Your task to perform on an android device: turn off translation in the chrome app Image 0: 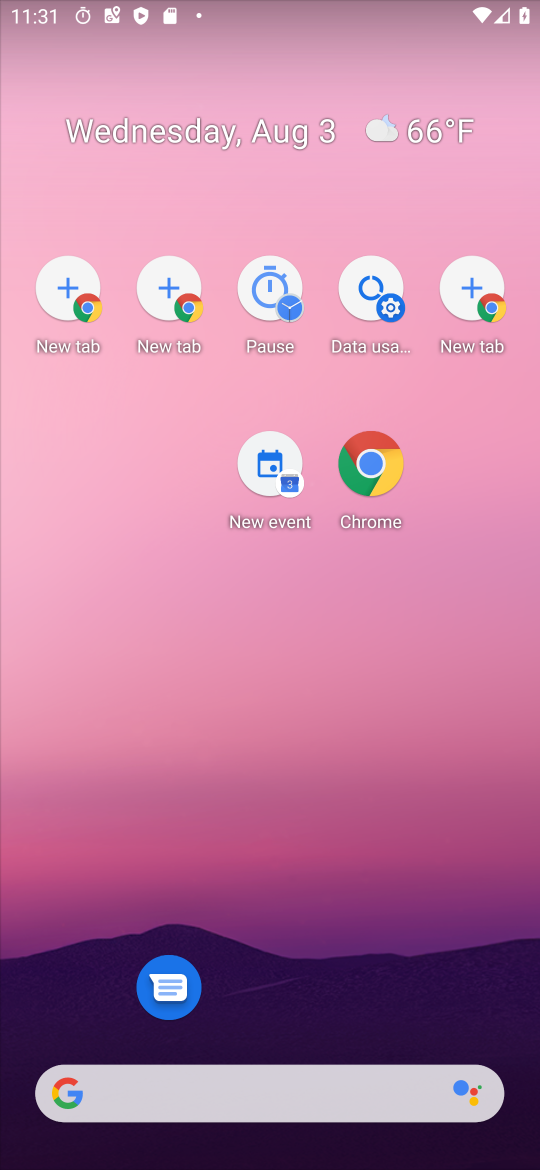
Step 0: drag from (497, 1074) to (248, 407)
Your task to perform on an android device: turn off translation in the chrome app Image 1: 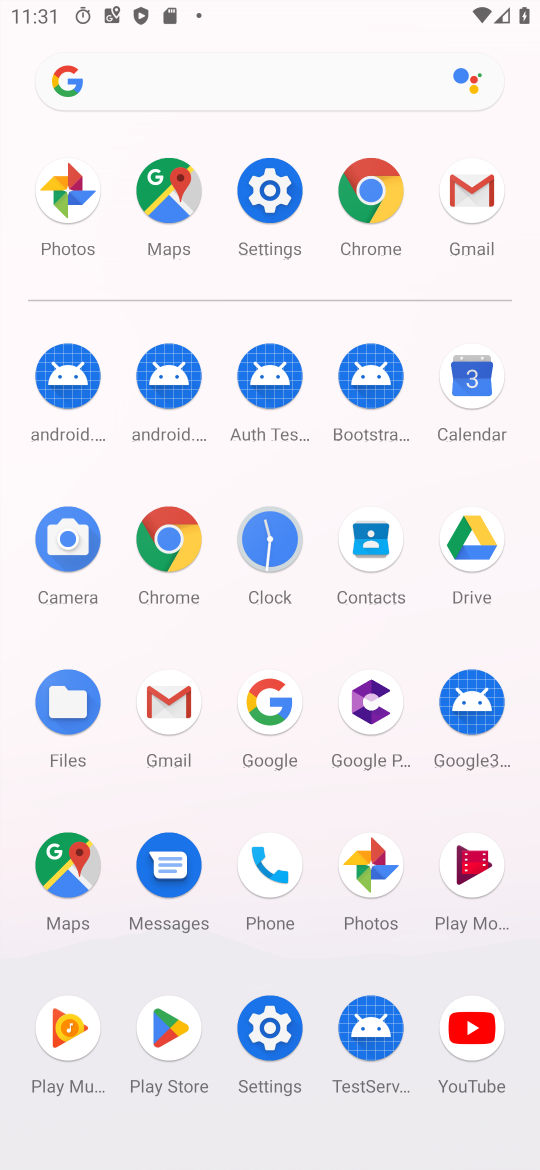
Step 1: click (350, 208)
Your task to perform on an android device: turn off translation in the chrome app Image 2: 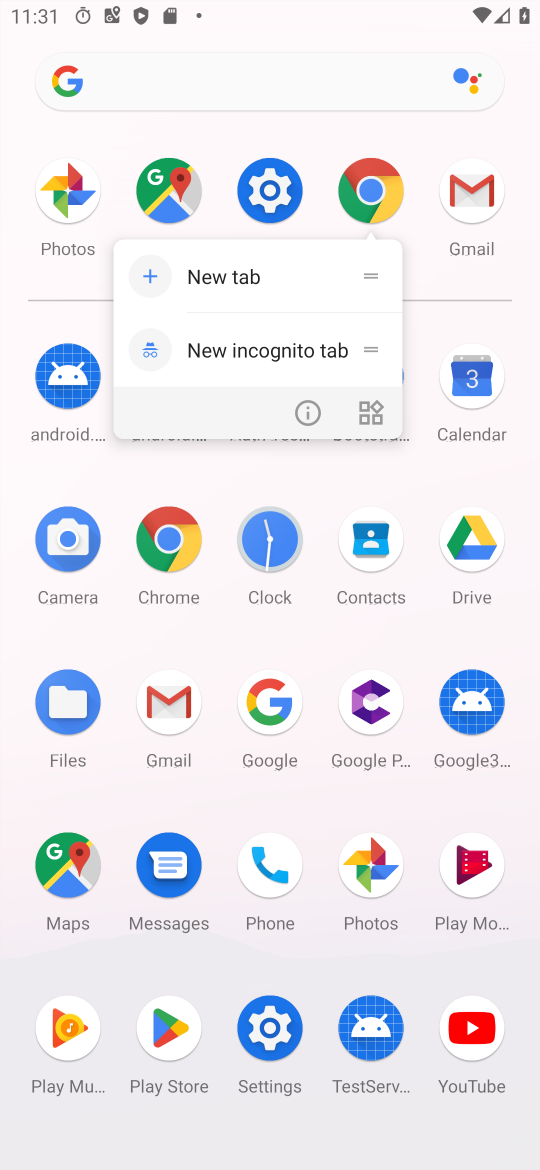
Step 2: click (368, 204)
Your task to perform on an android device: turn off translation in the chrome app Image 3: 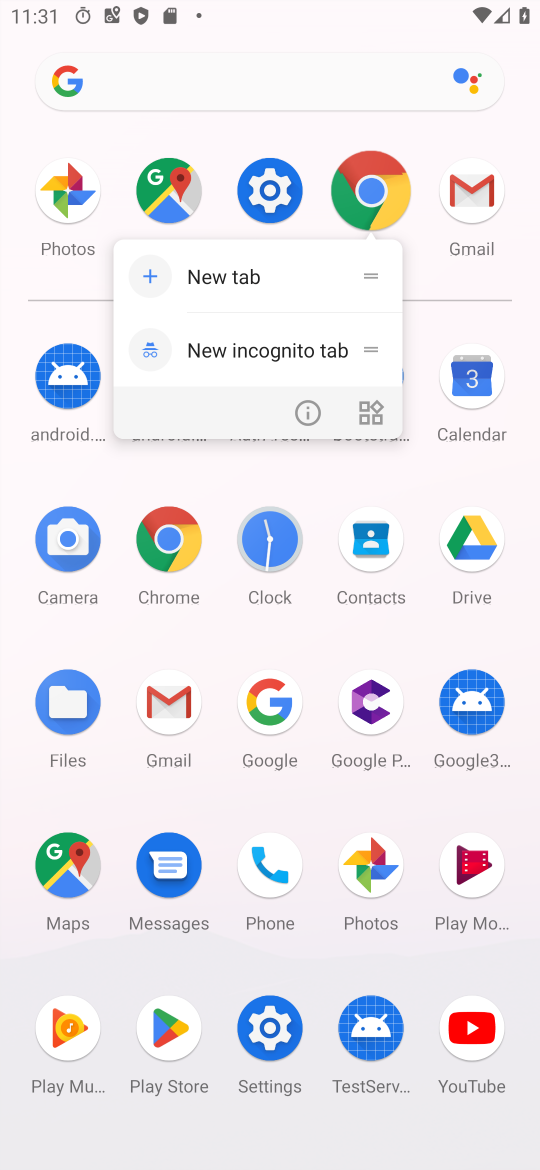
Step 3: click (364, 180)
Your task to perform on an android device: turn off translation in the chrome app Image 4: 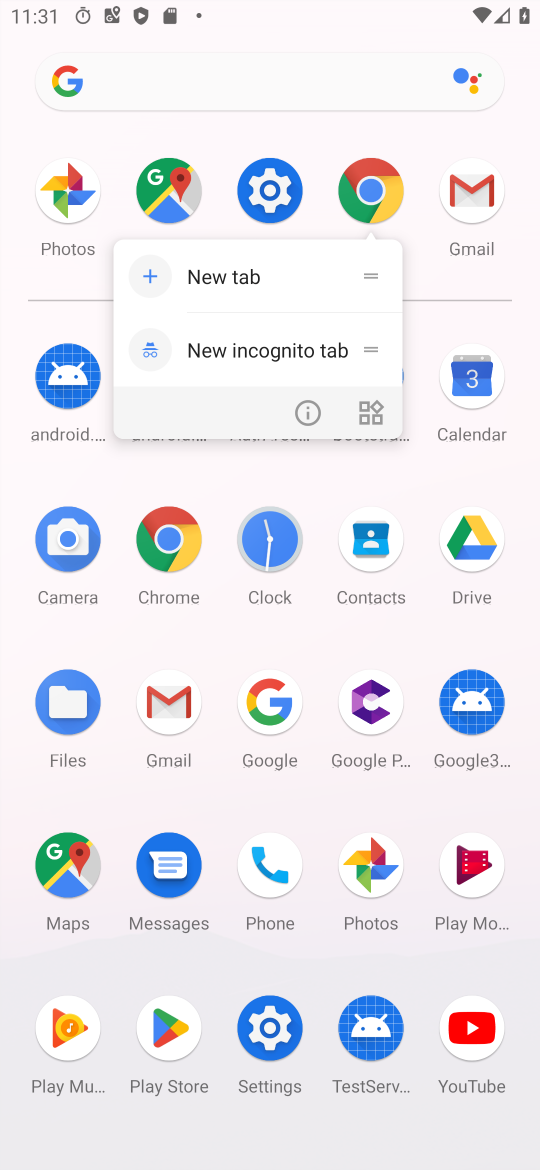
Step 4: click (363, 179)
Your task to perform on an android device: turn off translation in the chrome app Image 5: 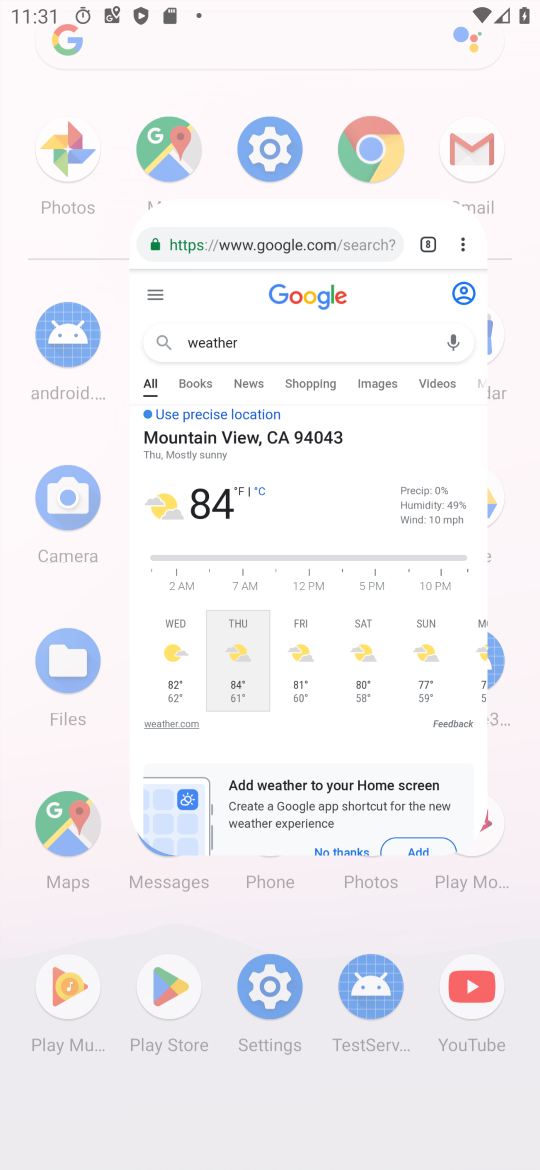
Step 5: click (355, 179)
Your task to perform on an android device: turn off translation in the chrome app Image 6: 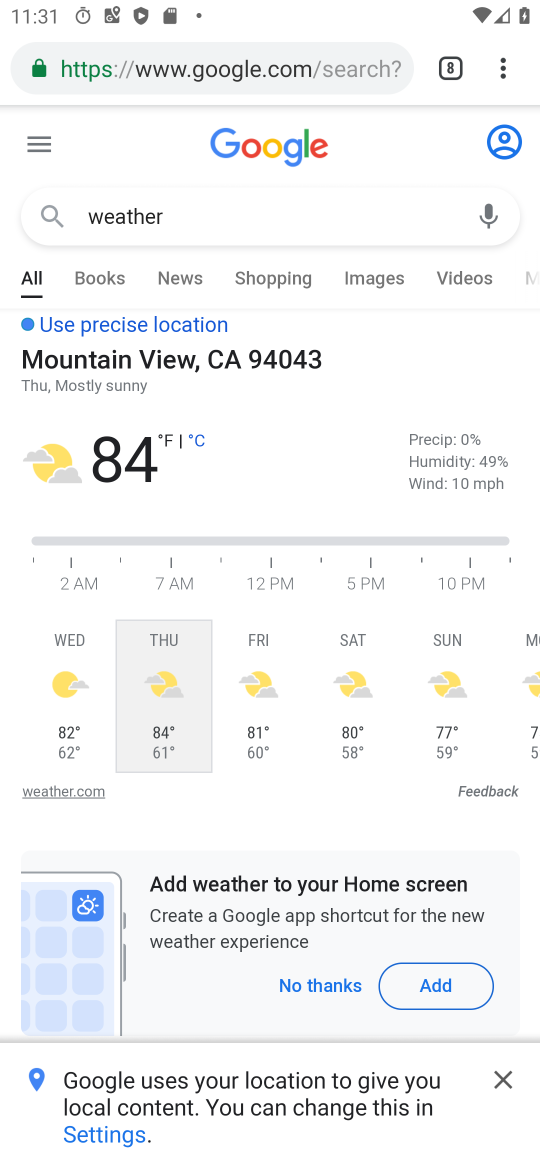
Step 6: drag from (501, 66) to (296, 757)
Your task to perform on an android device: turn off translation in the chrome app Image 7: 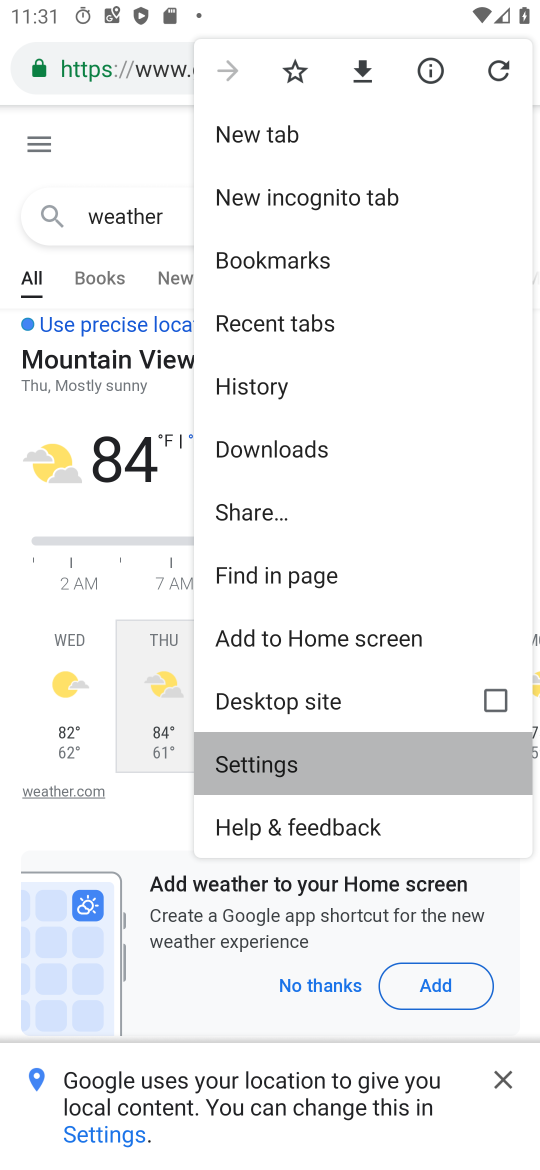
Step 7: click (305, 754)
Your task to perform on an android device: turn off translation in the chrome app Image 8: 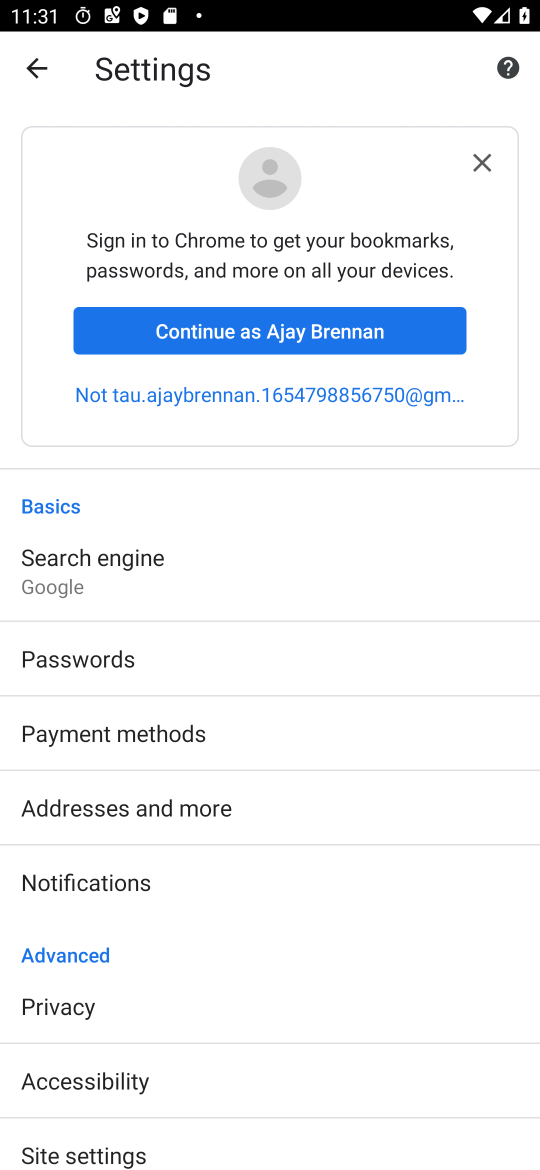
Step 8: drag from (125, 1005) to (21, 293)
Your task to perform on an android device: turn off translation in the chrome app Image 9: 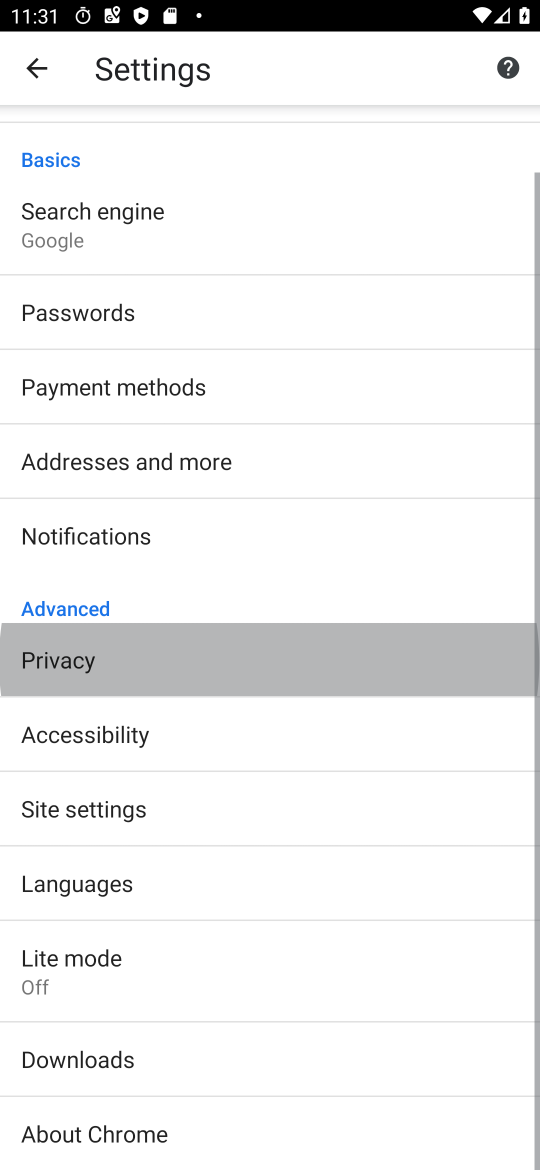
Step 9: drag from (149, 951) to (84, 387)
Your task to perform on an android device: turn off translation in the chrome app Image 10: 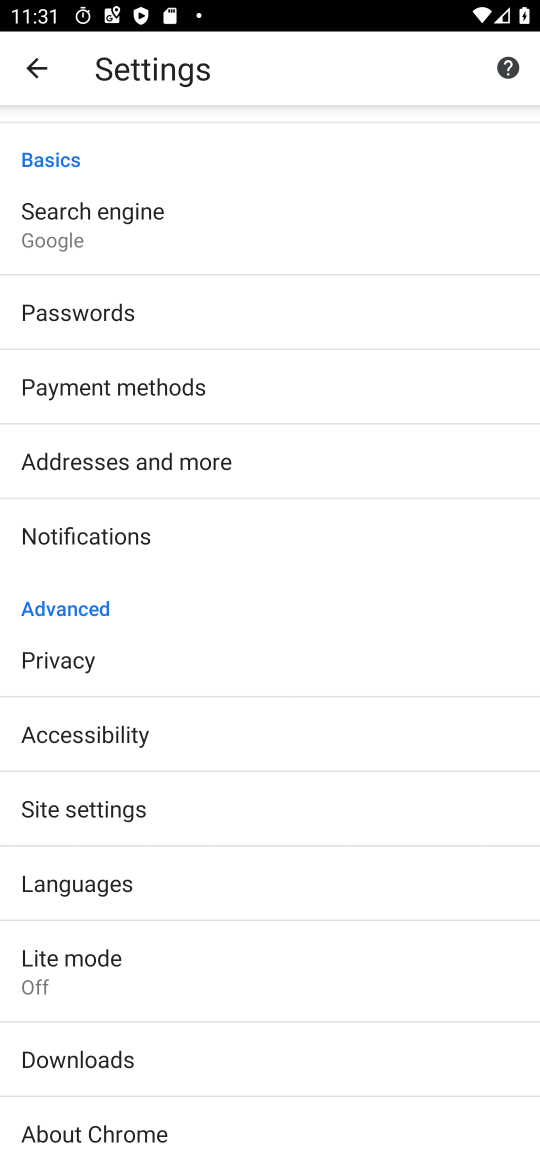
Step 10: drag from (222, 942) to (206, 537)
Your task to perform on an android device: turn off translation in the chrome app Image 11: 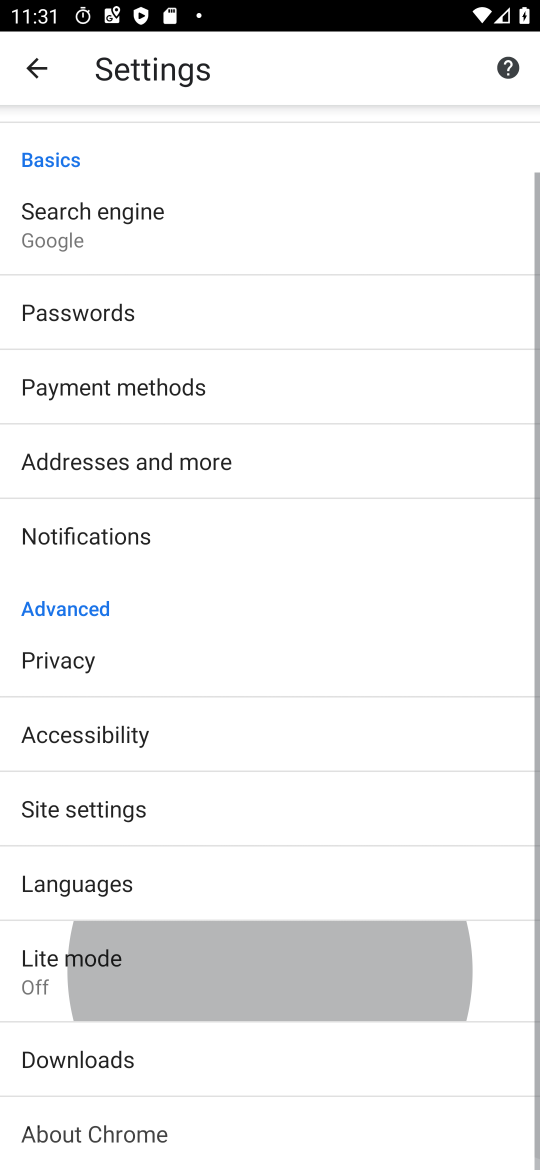
Step 11: drag from (194, 764) to (179, 674)
Your task to perform on an android device: turn off translation in the chrome app Image 12: 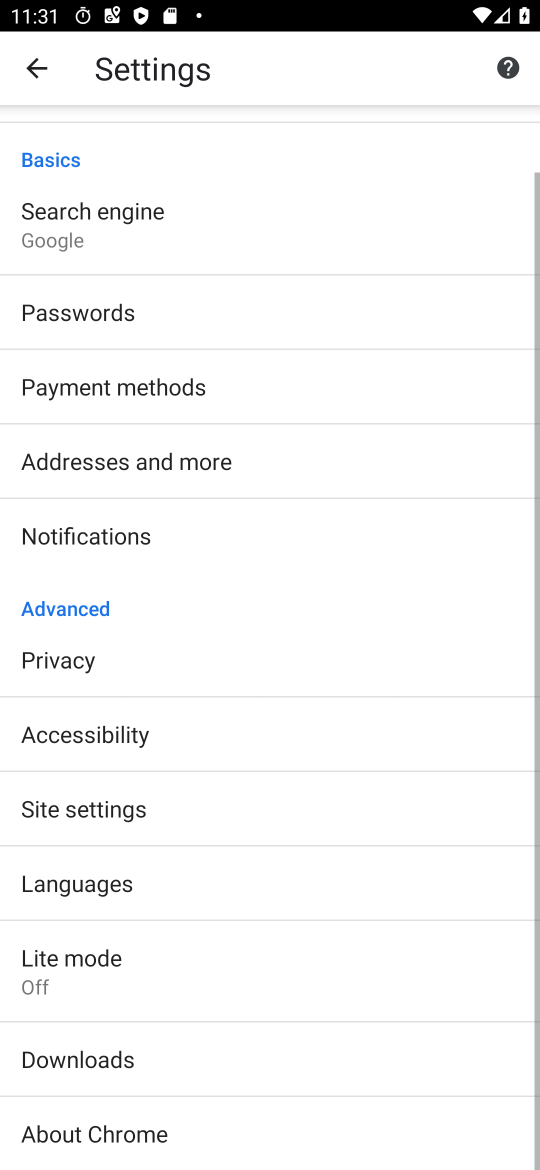
Step 12: click (114, 883)
Your task to perform on an android device: turn off translation in the chrome app Image 13: 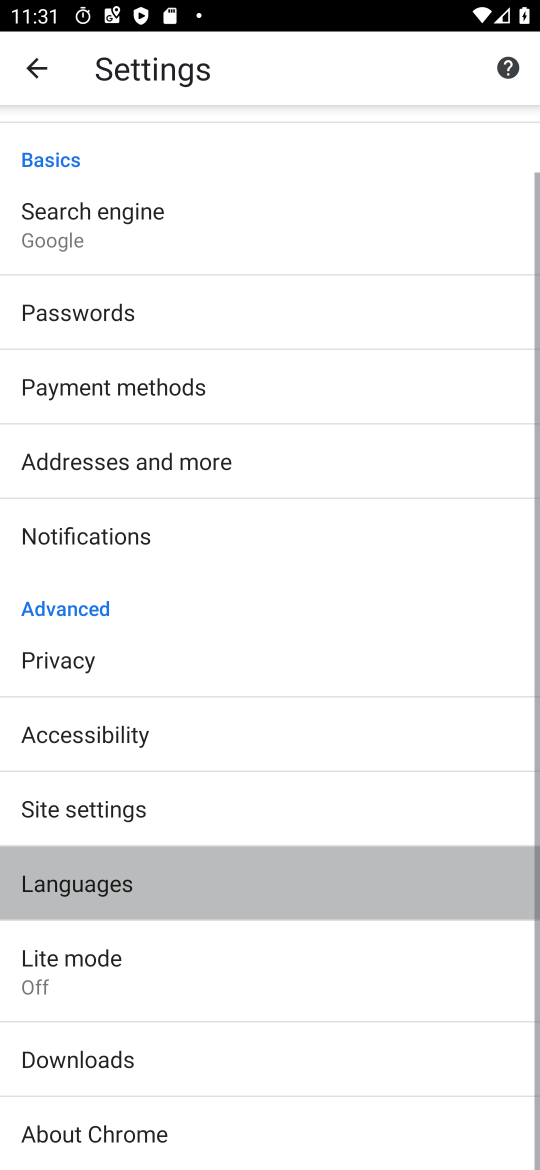
Step 13: click (118, 881)
Your task to perform on an android device: turn off translation in the chrome app Image 14: 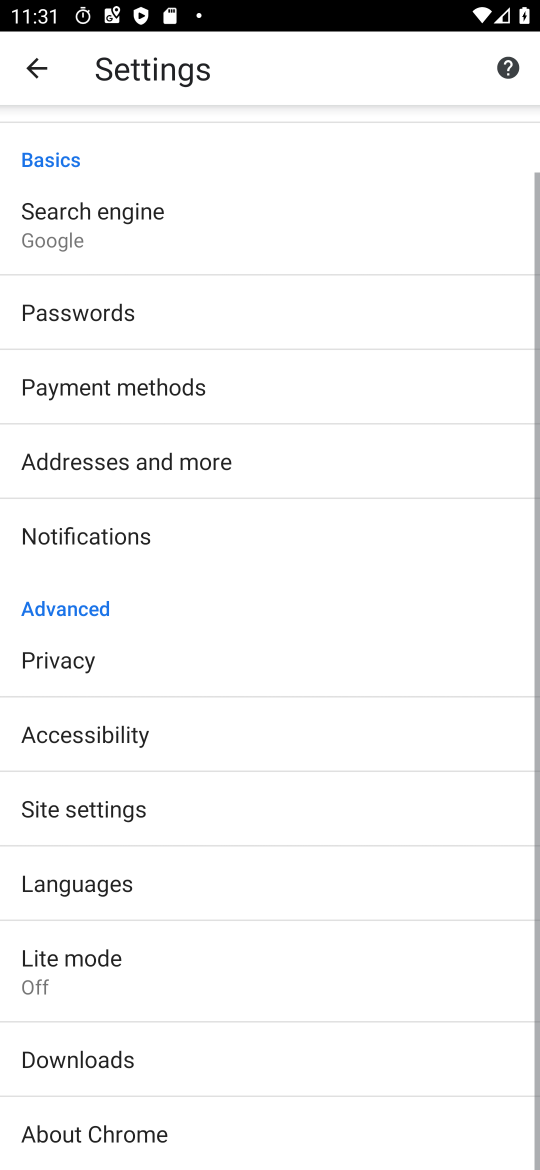
Step 14: click (120, 879)
Your task to perform on an android device: turn off translation in the chrome app Image 15: 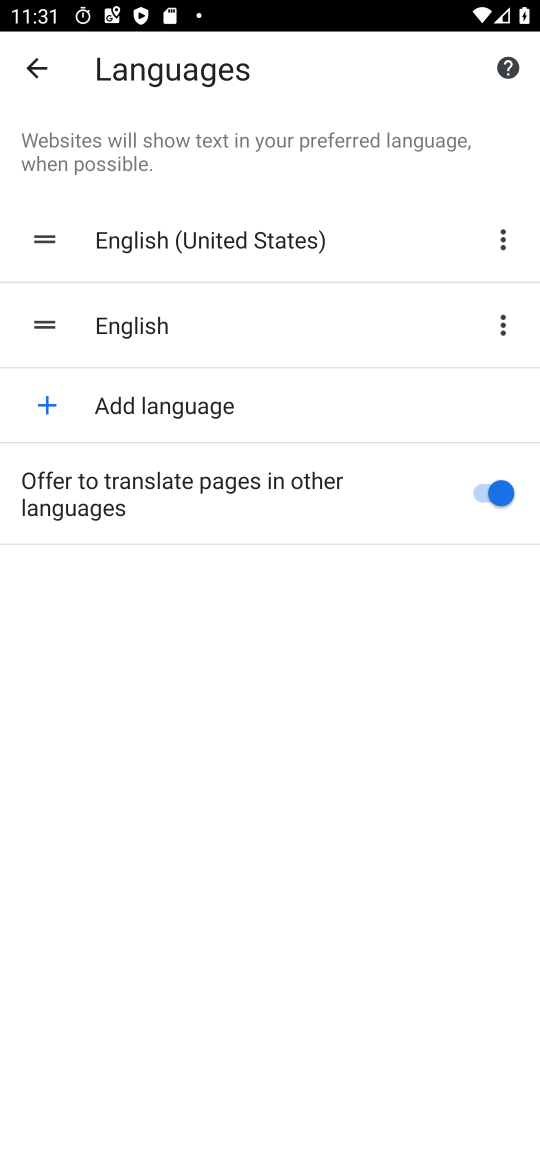
Step 15: click (125, 880)
Your task to perform on an android device: turn off translation in the chrome app Image 16: 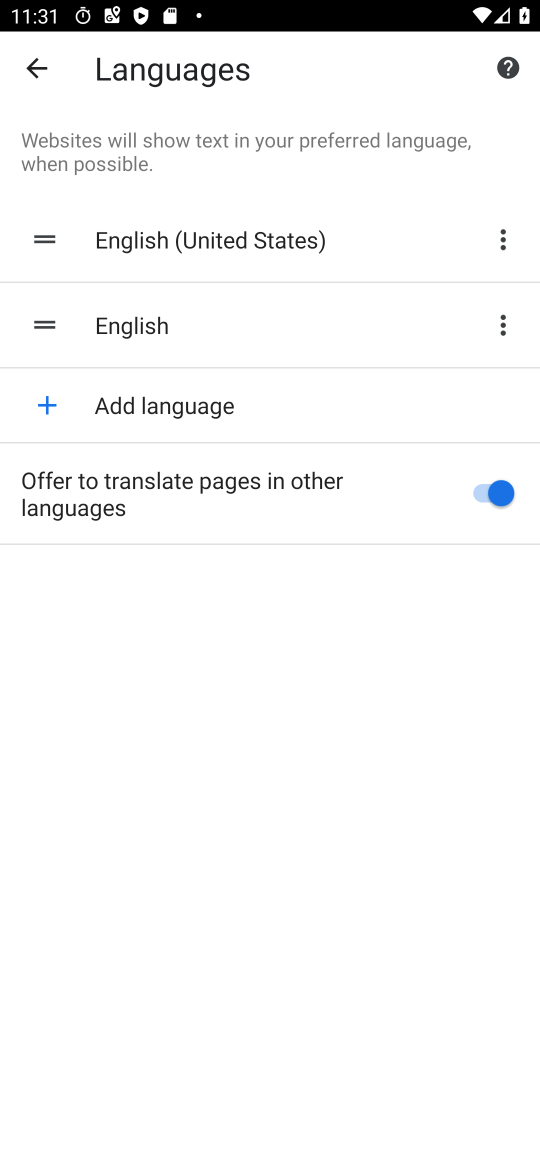
Step 16: click (125, 880)
Your task to perform on an android device: turn off translation in the chrome app Image 17: 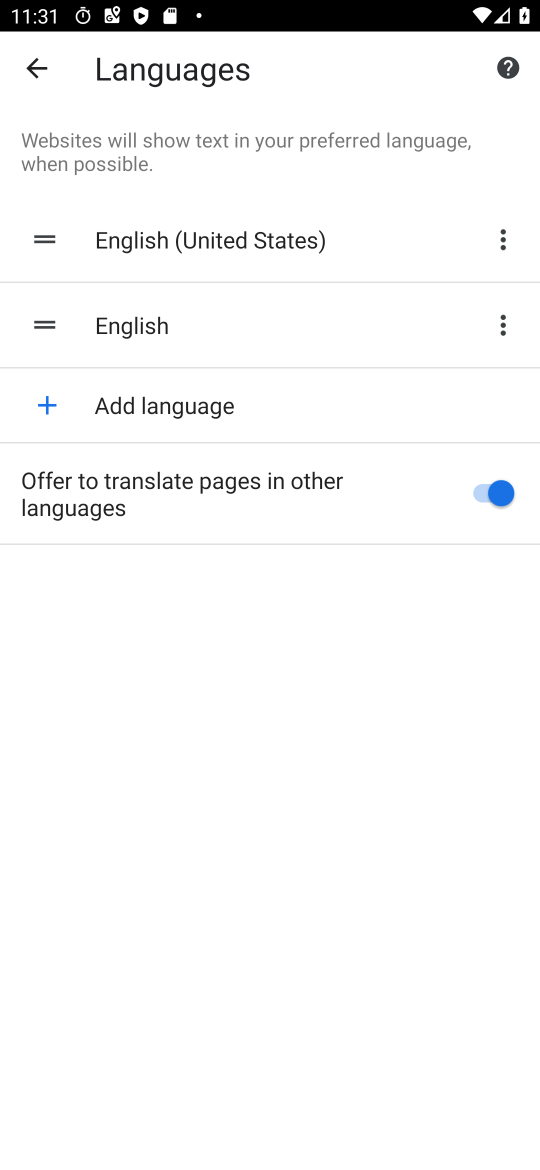
Step 17: click (505, 481)
Your task to perform on an android device: turn off translation in the chrome app Image 18: 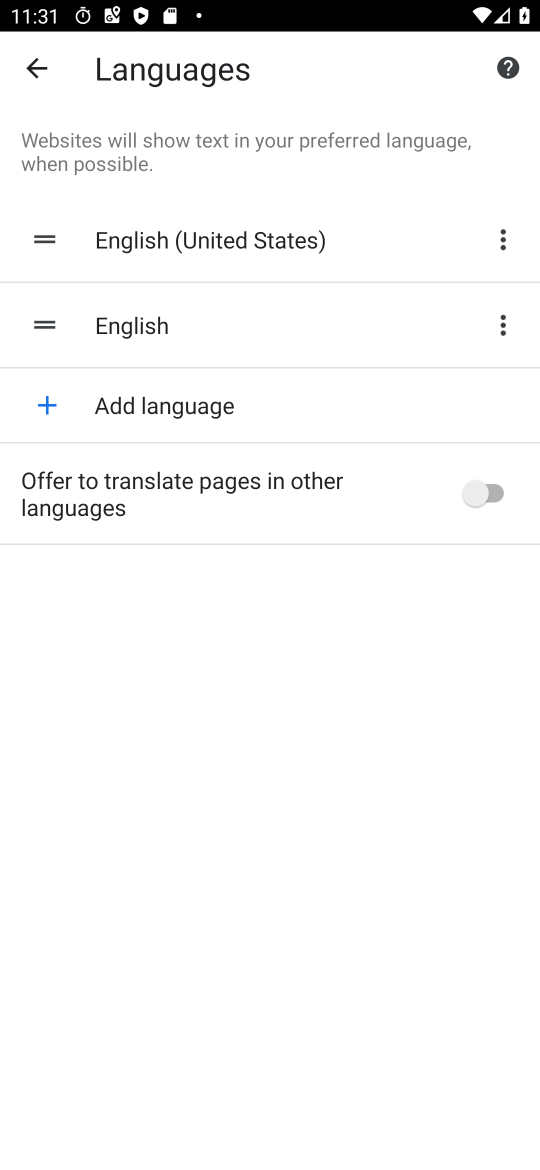
Step 18: task complete